Your task to perform on an android device: add a contact Image 0: 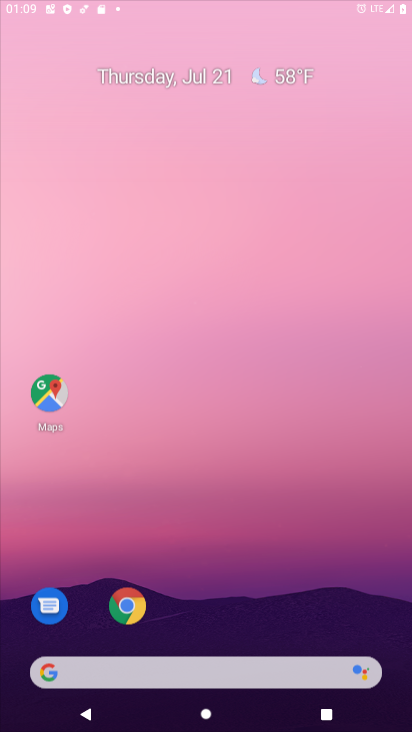
Step 0: press home button
Your task to perform on an android device: add a contact Image 1: 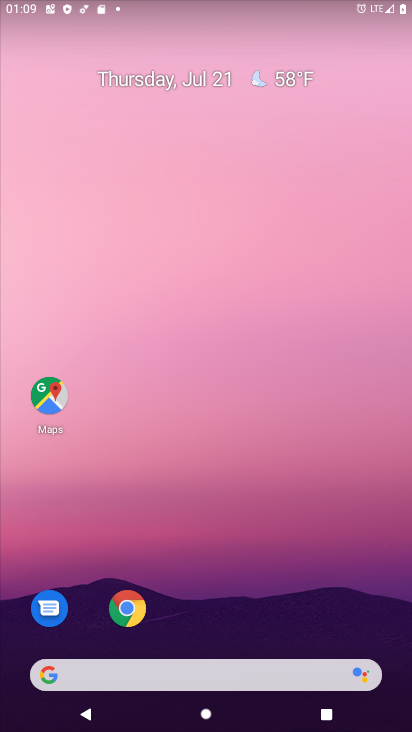
Step 1: drag from (200, 646) to (219, 8)
Your task to perform on an android device: add a contact Image 2: 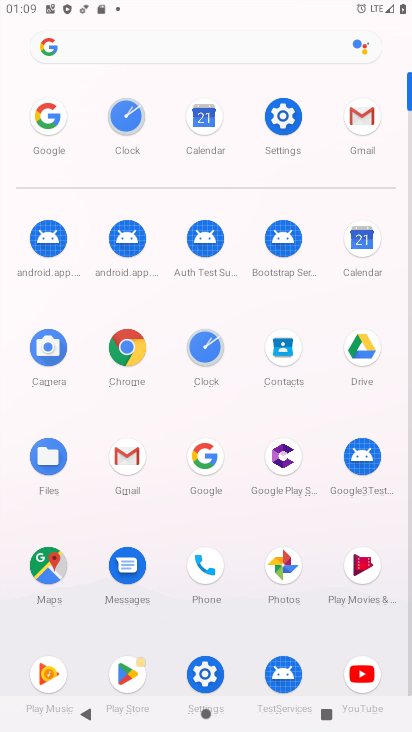
Step 2: click (282, 342)
Your task to perform on an android device: add a contact Image 3: 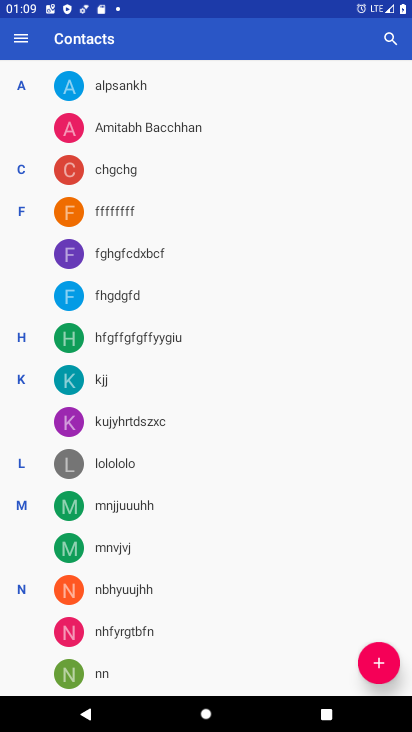
Step 3: click (377, 655)
Your task to perform on an android device: add a contact Image 4: 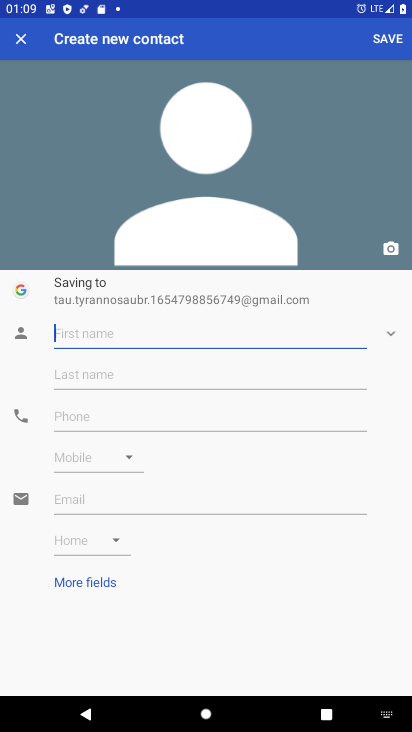
Step 4: type "aprnkt"
Your task to perform on an android device: add a contact Image 5: 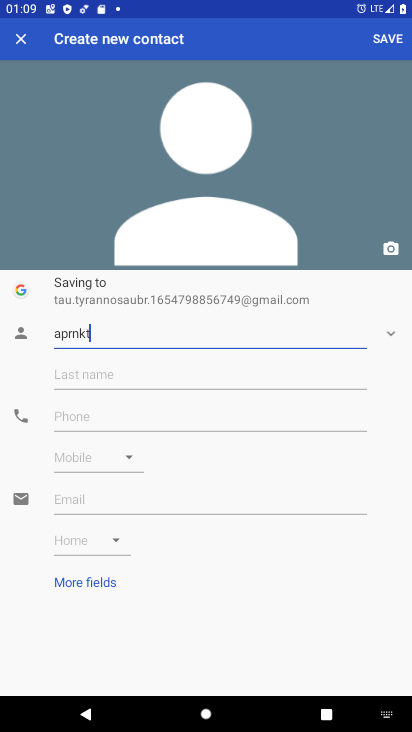
Step 5: click (377, 35)
Your task to perform on an android device: add a contact Image 6: 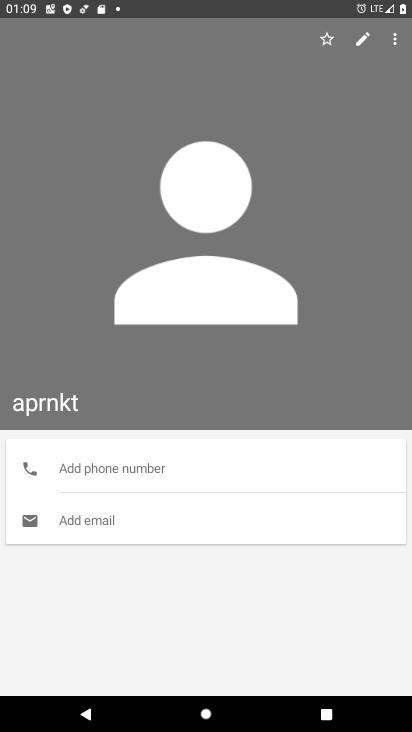
Step 6: task complete